Your task to perform on an android device: Show me the alarms in the clock app Image 0: 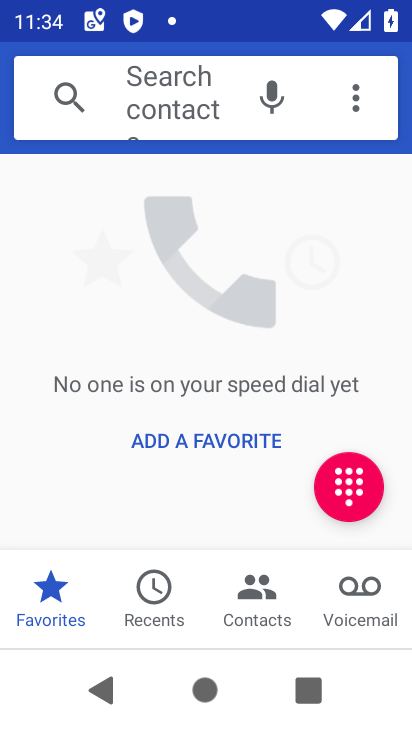
Step 0: press home button
Your task to perform on an android device: Show me the alarms in the clock app Image 1: 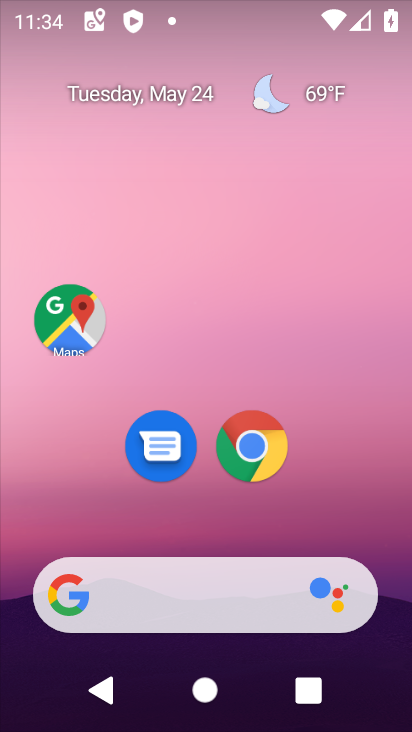
Step 1: drag from (115, 548) to (208, 70)
Your task to perform on an android device: Show me the alarms in the clock app Image 2: 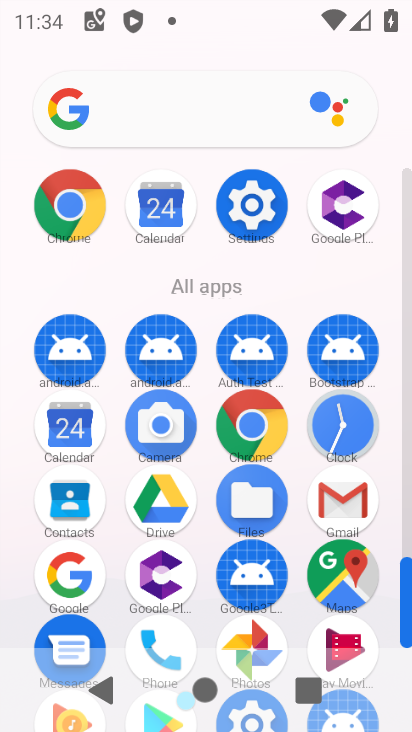
Step 2: drag from (270, 642) to (325, 277)
Your task to perform on an android device: Show me the alarms in the clock app Image 3: 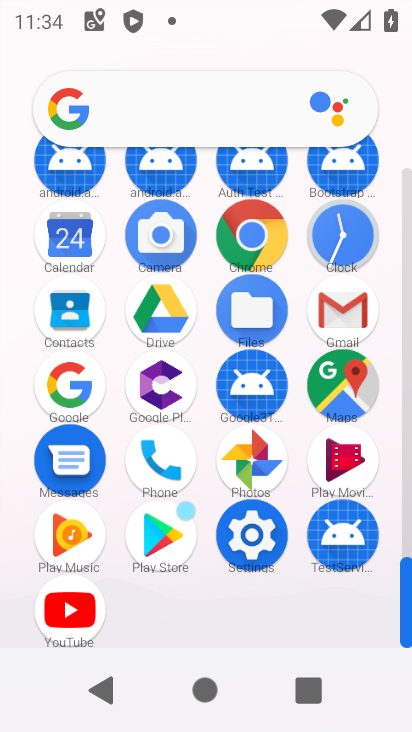
Step 3: click (336, 244)
Your task to perform on an android device: Show me the alarms in the clock app Image 4: 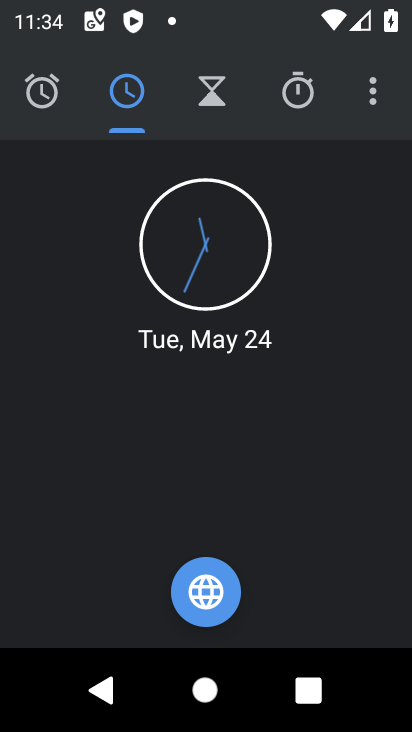
Step 4: click (35, 100)
Your task to perform on an android device: Show me the alarms in the clock app Image 5: 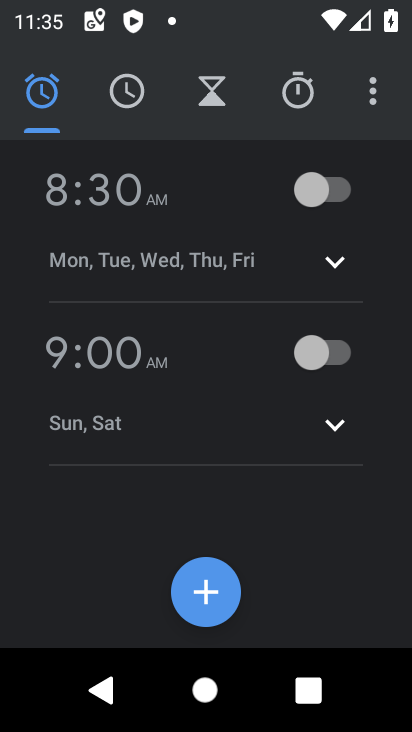
Step 5: task complete